Your task to perform on an android device: Show me recent news Image 0: 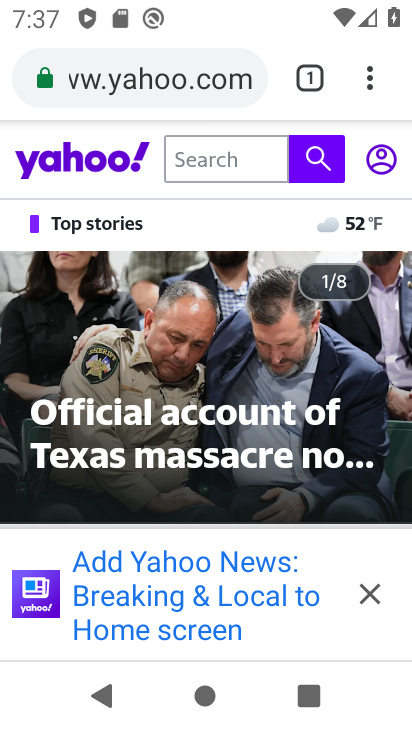
Step 0: press home button
Your task to perform on an android device: Show me recent news Image 1: 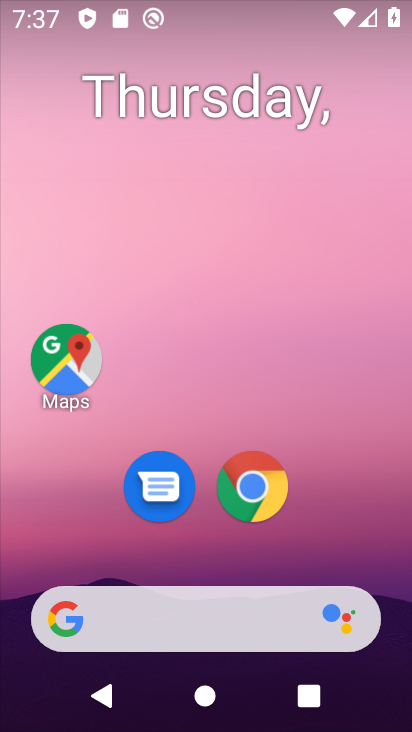
Step 1: drag from (292, 605) to (374, 109)
Your task to perform on an android device: Show me recent news Image 2: 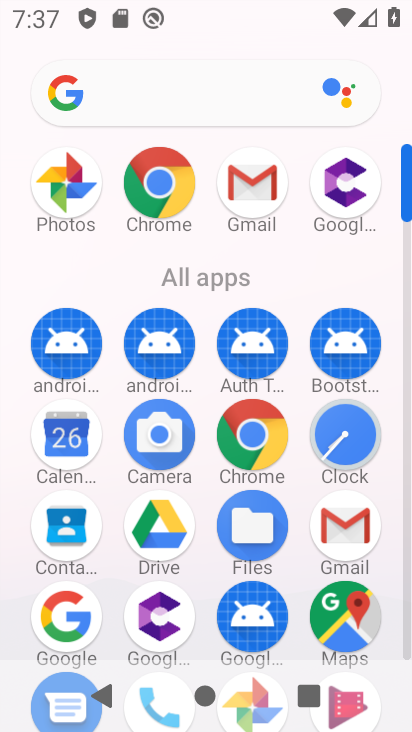
Step 2: click (78, 615)
Your task to perform on an android device: Show me recent news Image 3: 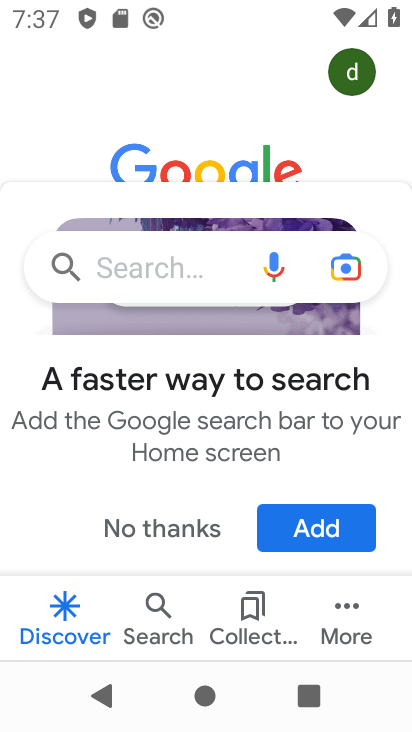
Step 3: click (215, 263)
Your task to perform on an android device: Show me recent news Image 4: 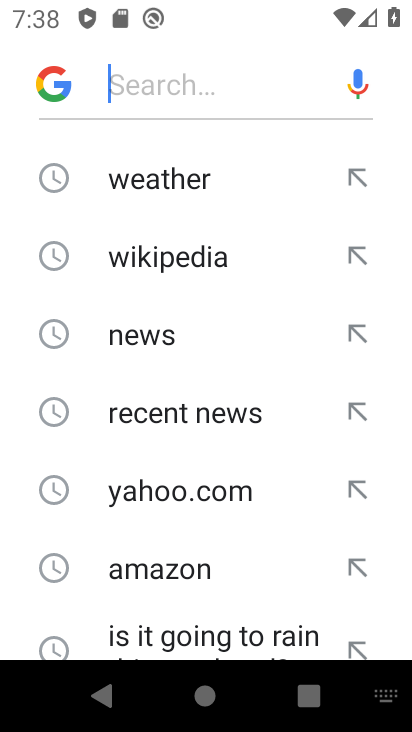
Step 4: click (213, 418)
Your task to perform on an android device: Show me recent news Image 5: 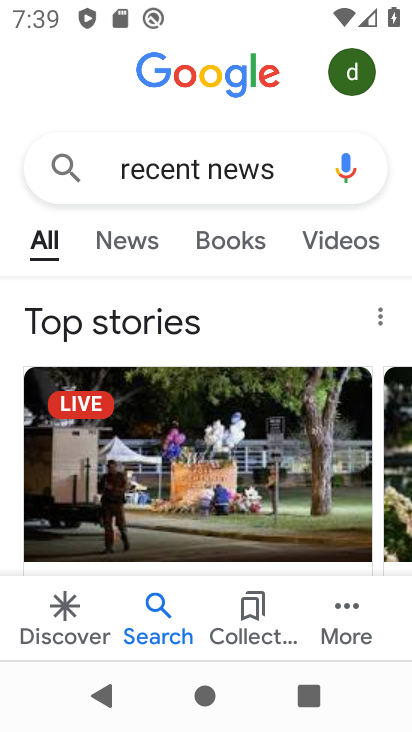
Step 5: click (122, 237)
Your task to perform on an android device: Show me recent news Image 6: 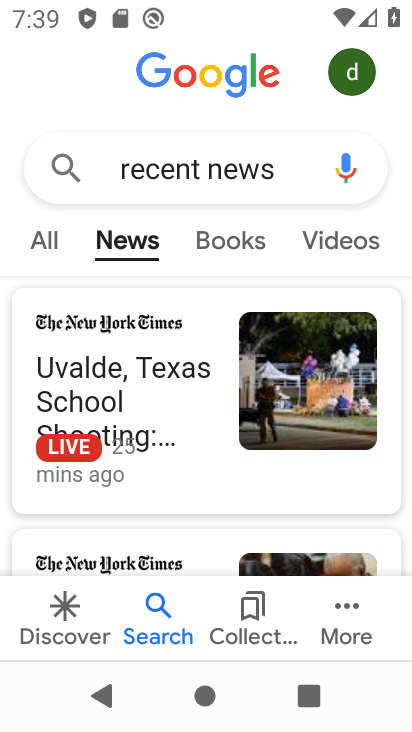
Step 6: task complete